Your task to perform on an android device: Is it going to rain this weekend? Image 0: 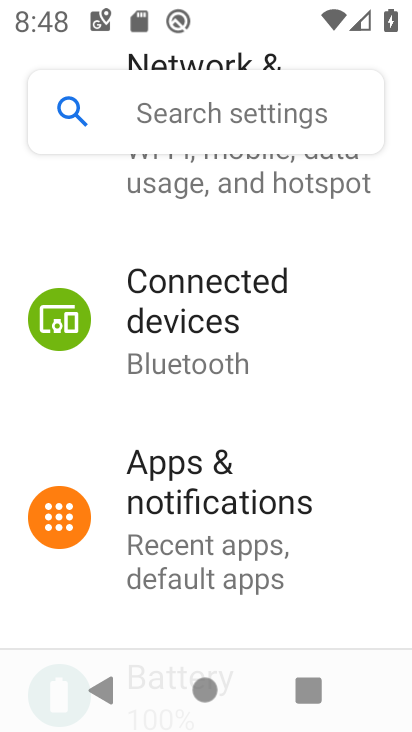
Step 0: press home button
Your task to perform on an android device: Is it going to rain this weekend? Image 1: 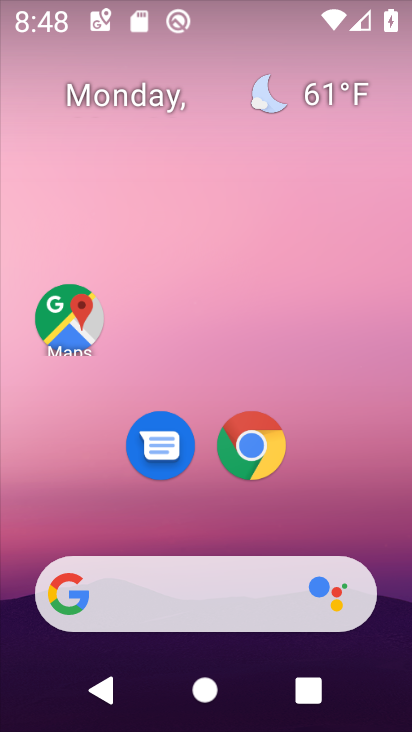
Step 1: click (336, 85)
Your task to perform on an android device: Is it going to rain this weekend? Image 2: 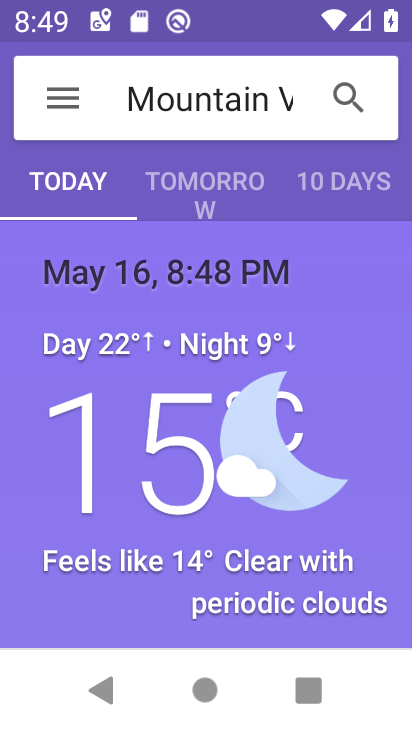
Step 2: click (349, 184)
Your task to perform on an android device: Is it going to rain this weekend? Image 3: 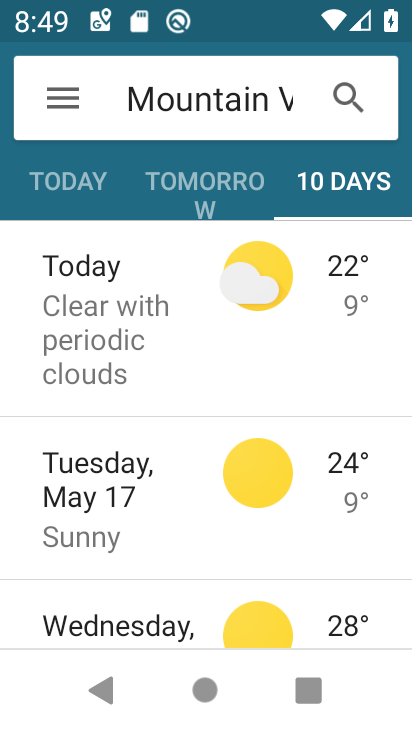
Step 3: task complete